Your task to perform on an android device: change notification settings in the gmail app Image 0: 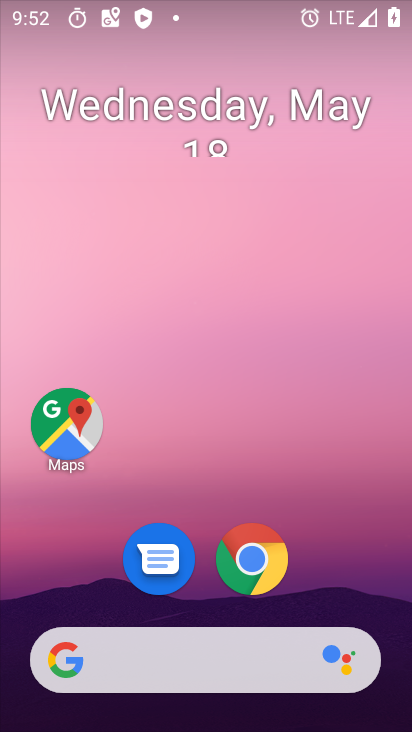
Step 0: drag from (335, 591) to (298, 42)
Your task to perform on an android device: change notification settings in the gmail app Image 1: 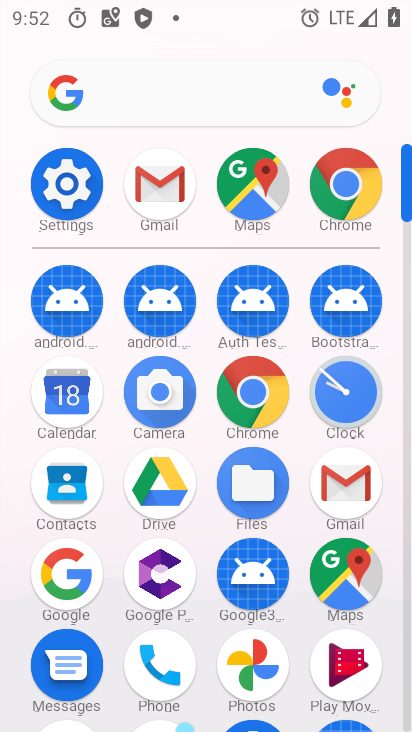
Step 1: drag from (15, 517) to (20, 272)
Your task to perform on an android device: change notification settings in the gmail app Image 2: 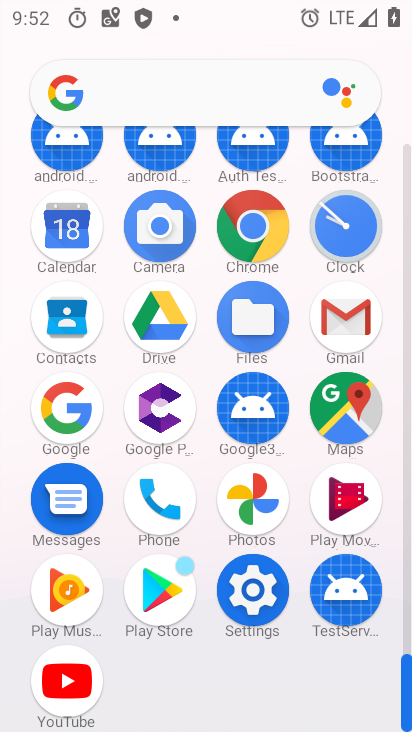
Step 2: click (350, 306)
Your task to perform on an android device: change notification settings in the gmail app Image 3: 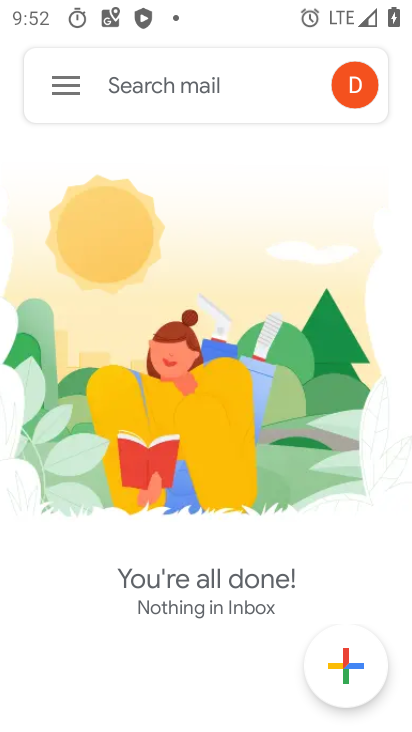
Step 3: click (72, 80)
Your task to perform on an android device: change notification settings in the gmail app Image 4: 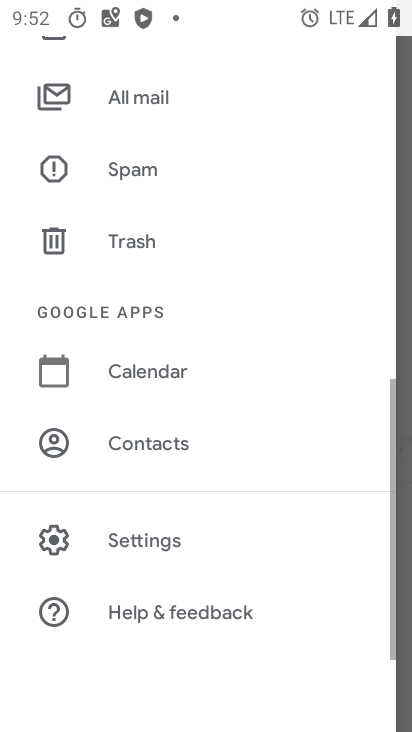
Step 4: click (123, 539)
Your task to perform on an android device: change notification settings in the gmail app Image 5: 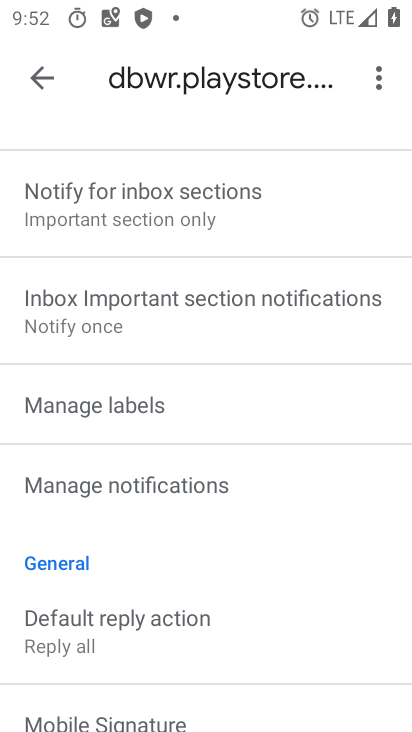
Step 5: click (128, 487)
Your task to perform on an android device: change notification settings in the gmail app Image 6: 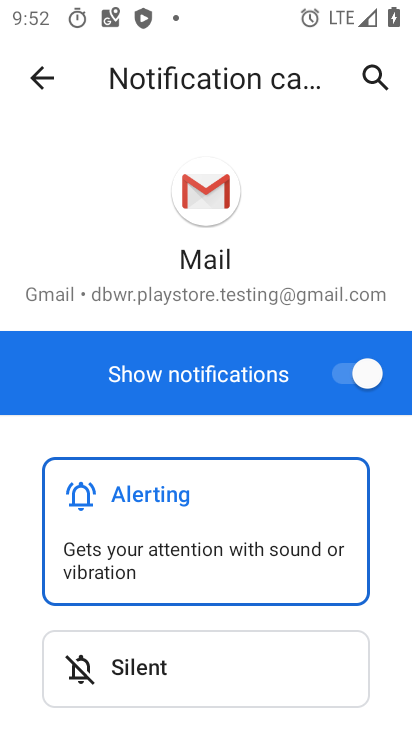
Step 6: drag from (250, 532) to (305, 139)
Your task to perform on an android device: change notification settings in the gmail app Image 7: 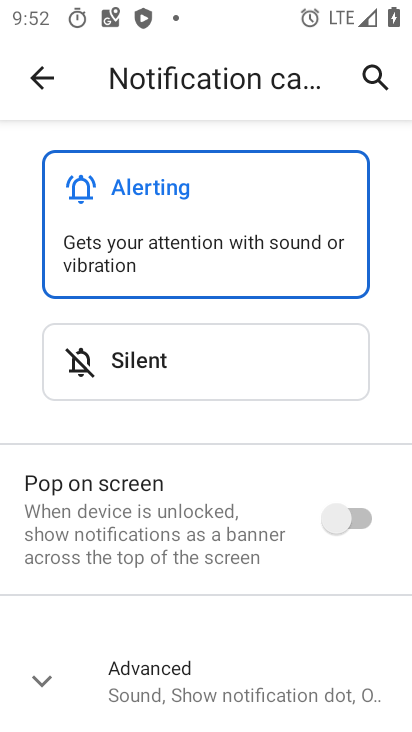
Step 7: drag from (167, 242) to (168, 635)
Your task to perform on an android device: change notification settings in the gmail app Image 8: 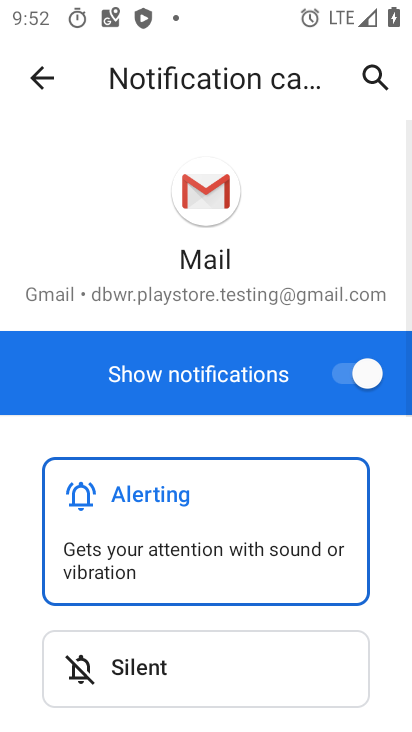
Step 8: drag from (172, 565) to (197, 177)
Your task to perform on an android device: change notification settings in the gmail app Image 9: 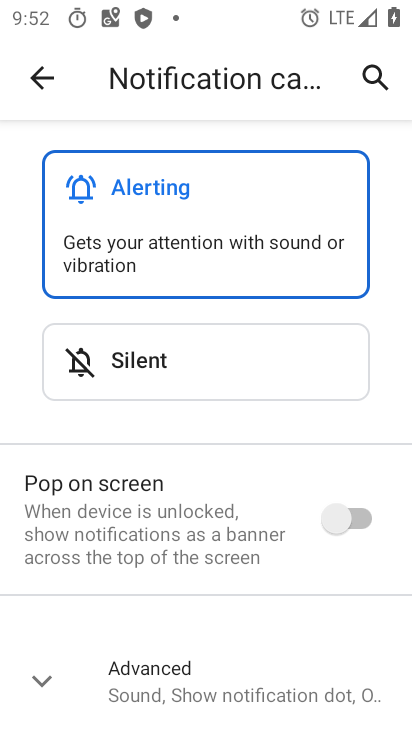
Step 9: drag from (224, 170) to (224, 583)
Your task to perform on an android device: change notification settings in the gmail app Image 10: 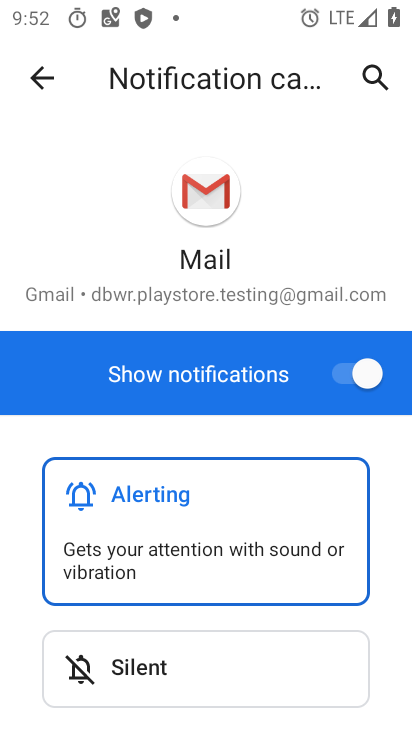
Step 10: click (343, 365)
Your task to perform on an android device: change notification settings in the gmail app Image 11: 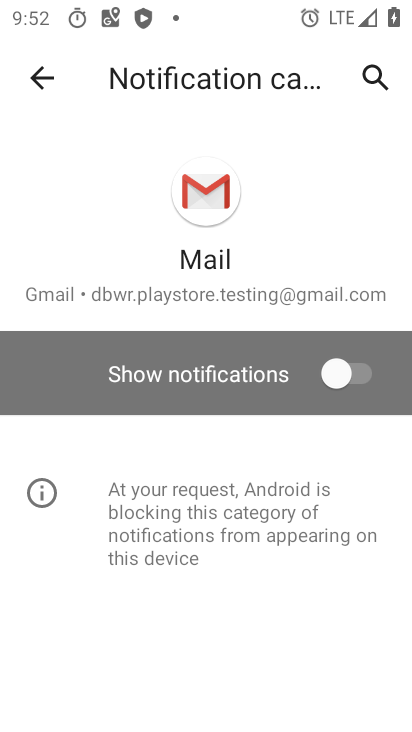
Step 11: task complete